Your task to perform on an android device: When is my next meeting? Image 0: 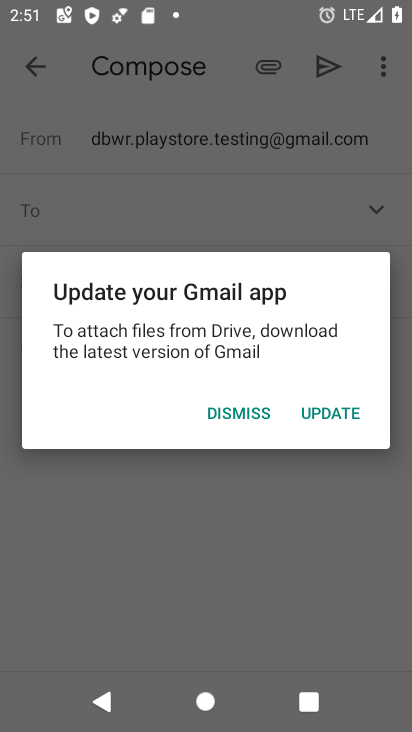
Step 0: press home button
Your task to perform on an android device: When is my next meeting? Image 1: 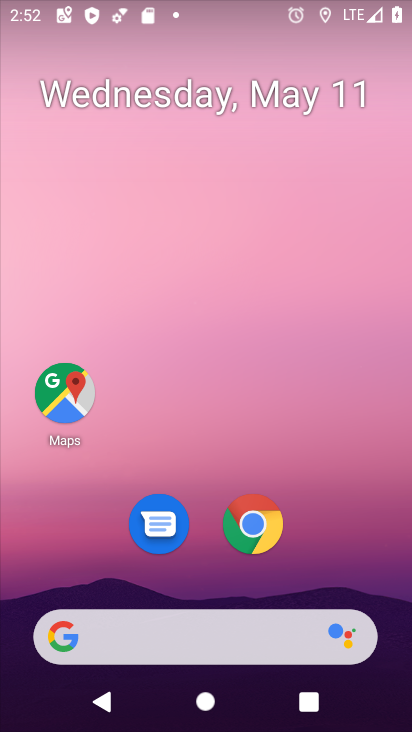
Step 1: drag from (308, 554) to (296, 64)
Your task to perform on an android device: When is my next meeting? Image 2: 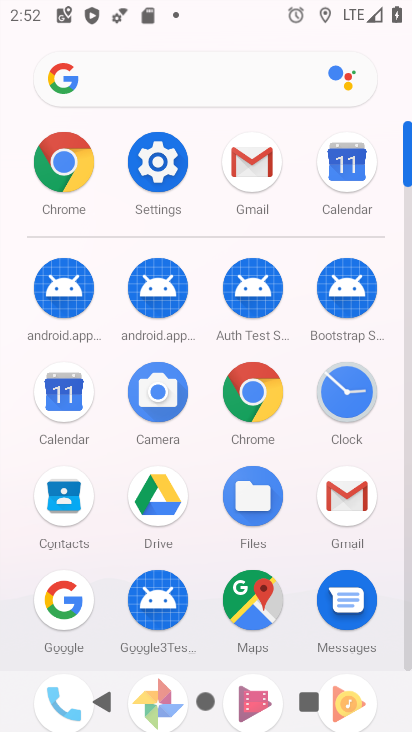
Step 2: click (338, 163)
Your task to perform on an android device: When is my next meeting? Image 3: 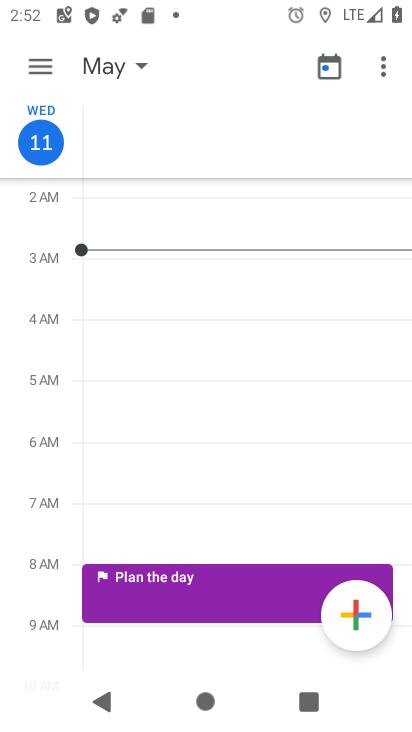
Step 3: click (39, 59)
Your task to perform on an android device: When is my next meeting? Image 4: 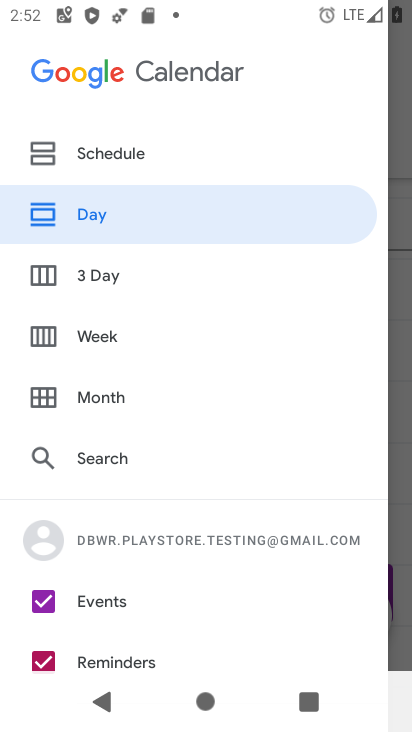
Step 4: click (76, 137)
Your task to perform on an android device: When is my next meeting? Image 5: 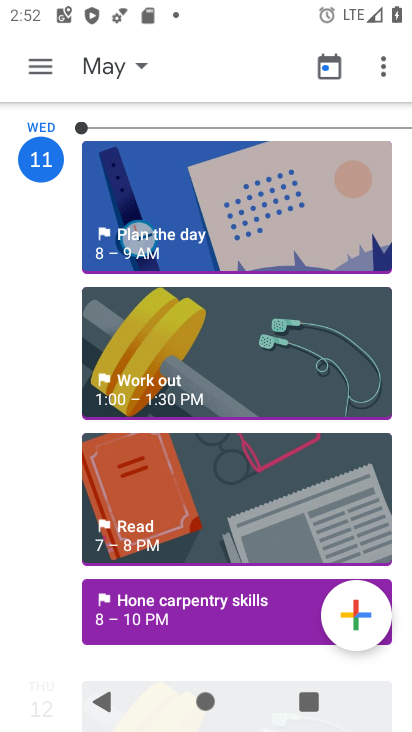
Step 5: task complete